Your task to perform on an android device: find photos in the google photos app Image 0: 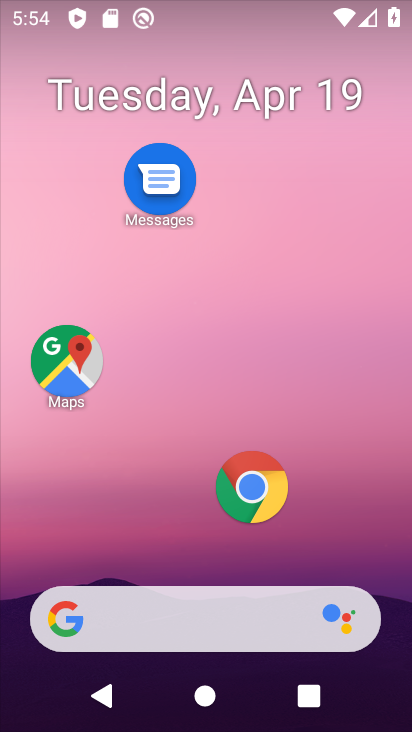
Step 0: click (249, 483)
Your task to perform on an android device: find photos in the google photos app Image 1: 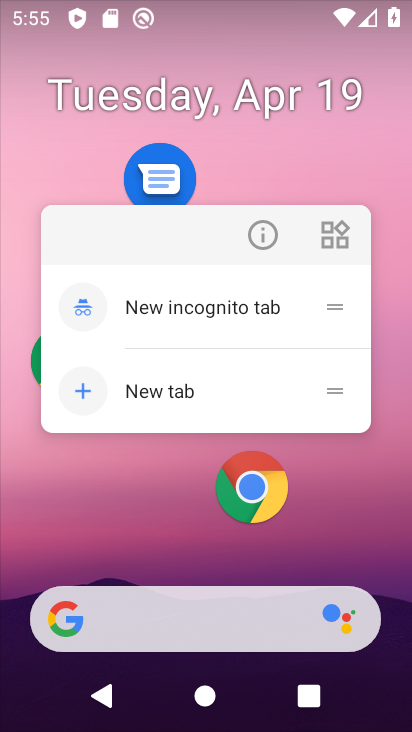
Step 1: click (203, 543)
Your task to perform on an android device: find photos in the google photos app Image 2: 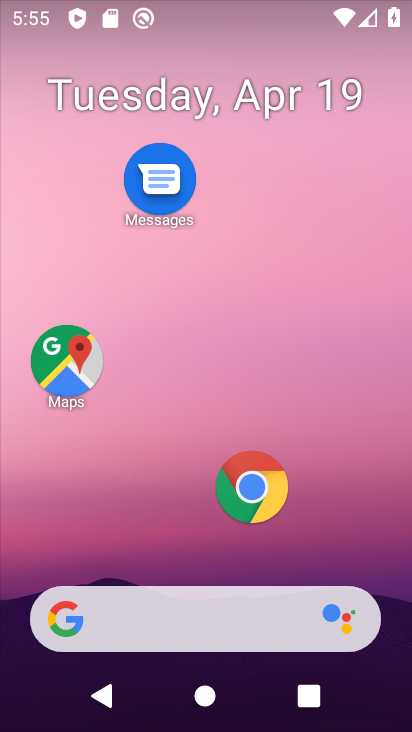
Step 2: drag from (209, 554) to (219, 118)
Your task to perform on an android device: find photos in the google photos app Image 3: 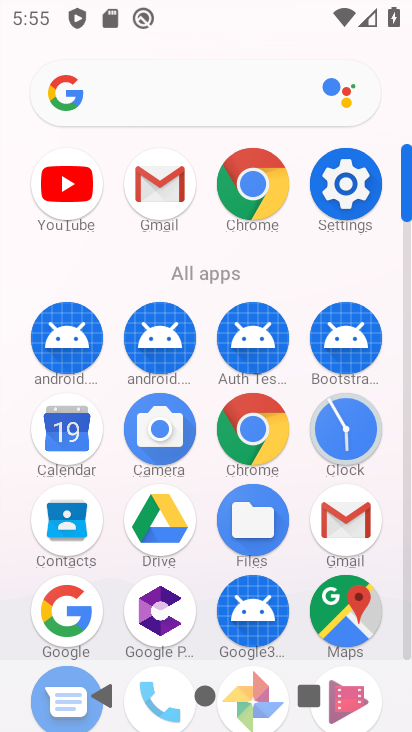
Step 3: drag from (204, 573) to (213, 203)
Your task to perform on an android device: find photos in the google photos app Image 4: 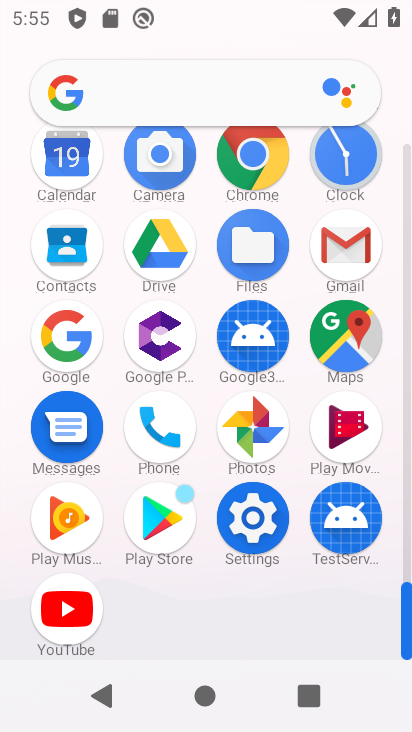
Step 4: click (249, 420)
Your task to perform on an android device: find photos in the google photos app Image 5: 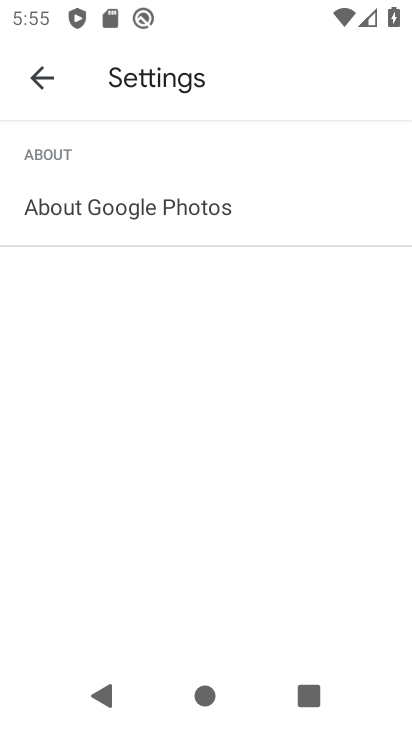
Step 5: click (45, 80)
Your task to perform on an android device: find photos in the google photos app Image 6: 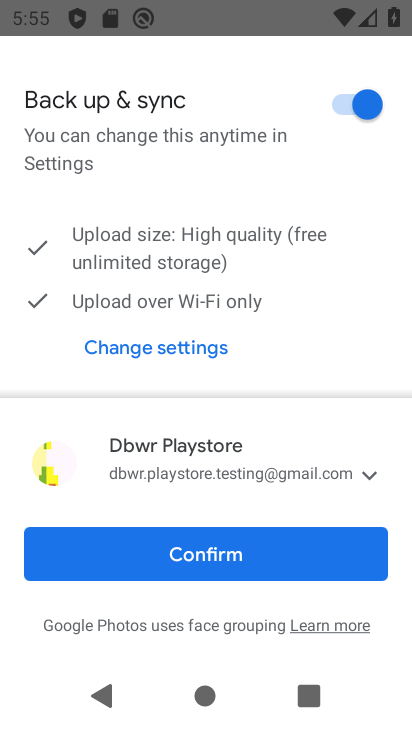
Step 6: click (203, 553)
Your task to perform on an android device: find photos in the google photos app Image 7: 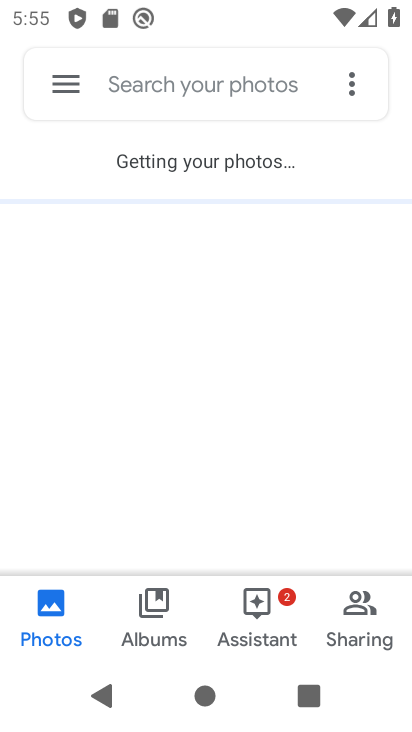
Step 7: task complete